Your task to perform on an android device: Search for vegetarian restaurants on Maps Image 0: 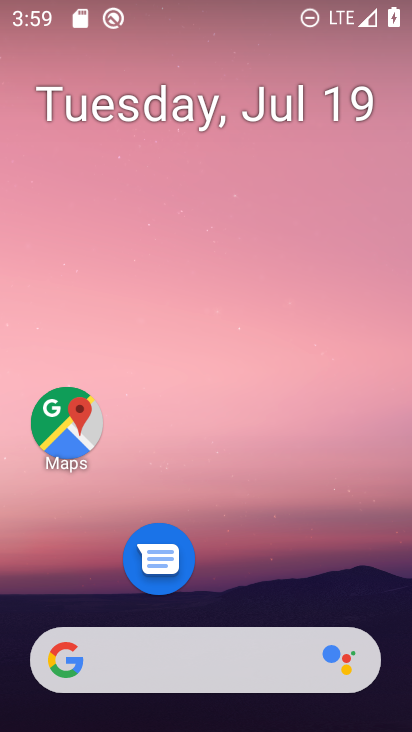
Step 0: drag from (275, 656) to (284, 363)
Your task to perform on an android device: Search for vegetarian restaurants on Maps Image 1: 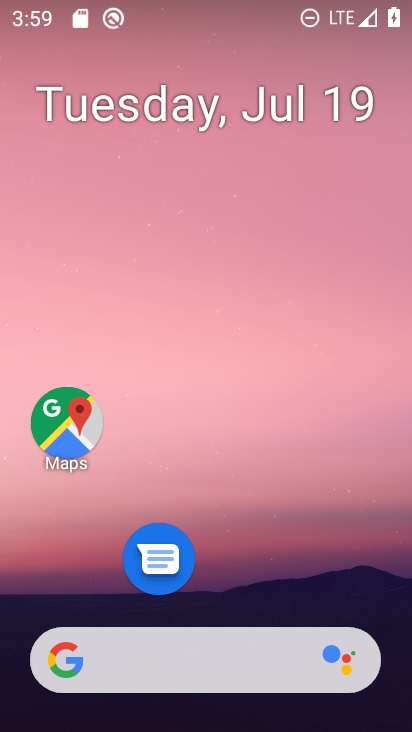
Step 1: drag from (240, 515) to (260, 283)
Your task to perform on an android device: Search for vegetarian restaurants on Maps Image 2: 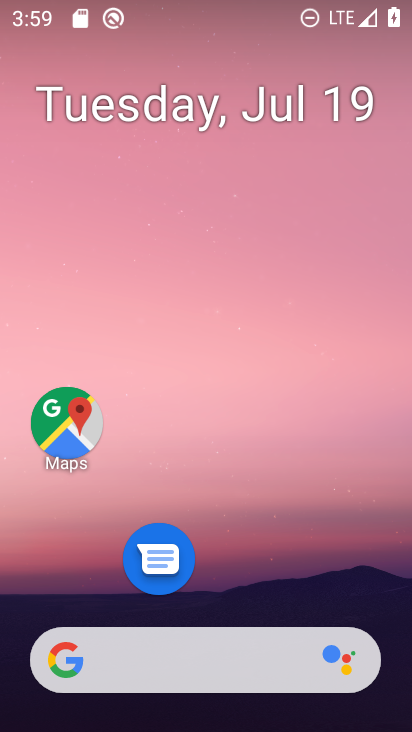
Step 2: drag from (275, 529) to (275, 313)
Your task to perform on an android device: Search for vegetarian restaurants on Maps Image 3: 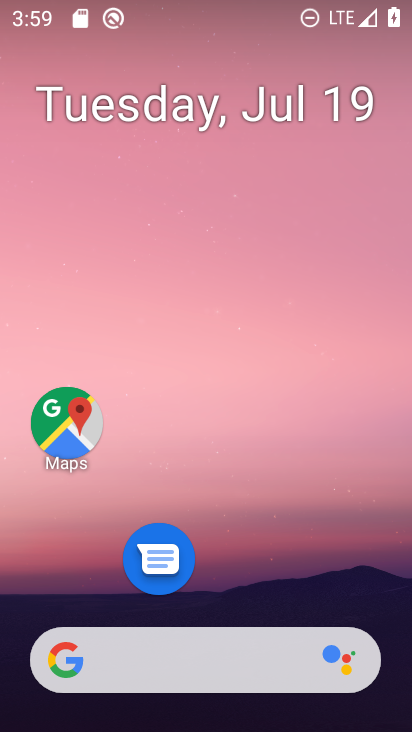
Step 3: drag from (267, 640) to (305, 159)
Your task to perform on an android device: Search for vegetarian restaurants on Maps Image 4: 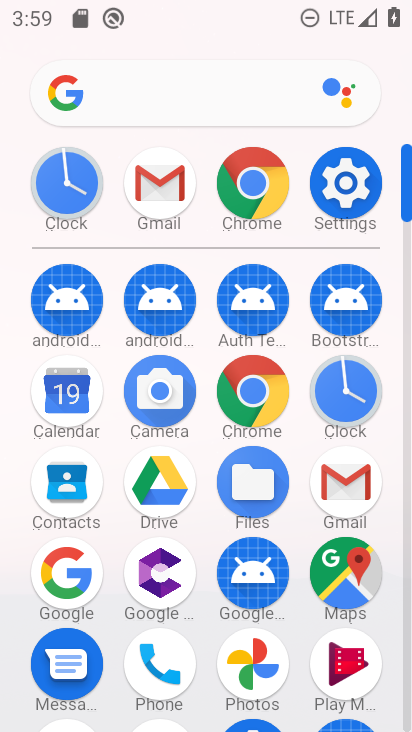
Step 4: click (336, 583)
Your task to perform on an android device: Search for vegetarian restaurants on Maps Image 5: 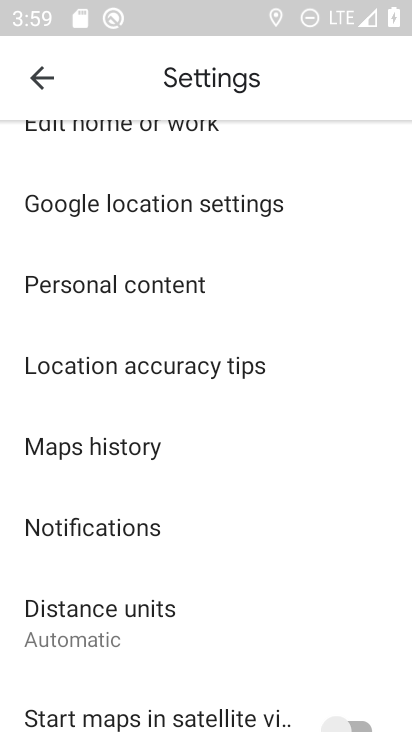
Step 5: press home button
Your task to perform on an android device: Search for vegetarian restaurants on Maps Image 6: 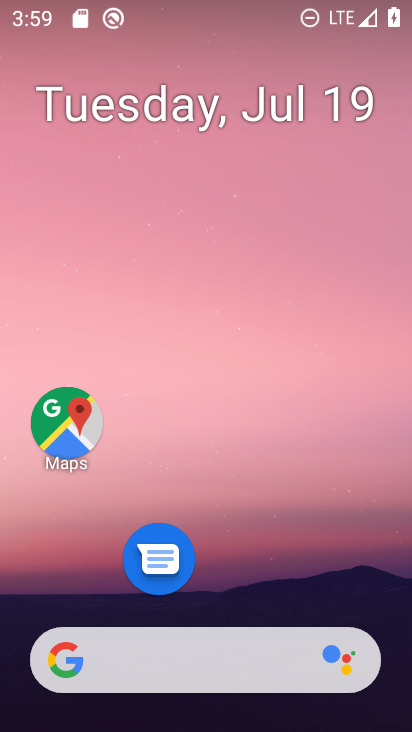
Step 6: click (39, 431)
Your task to perform on an android device: Search for vegetarian restaurants on Maps Image 7: 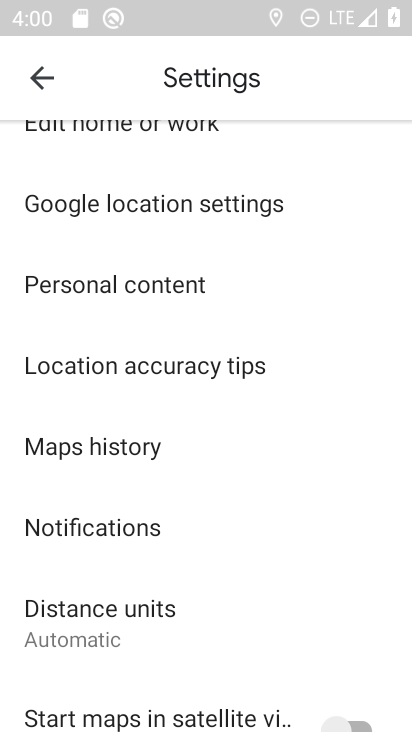
Step 7: click (41, 69)
Your task to perform on an android device: Search for vegetarian restaurants on Maps Image 8: 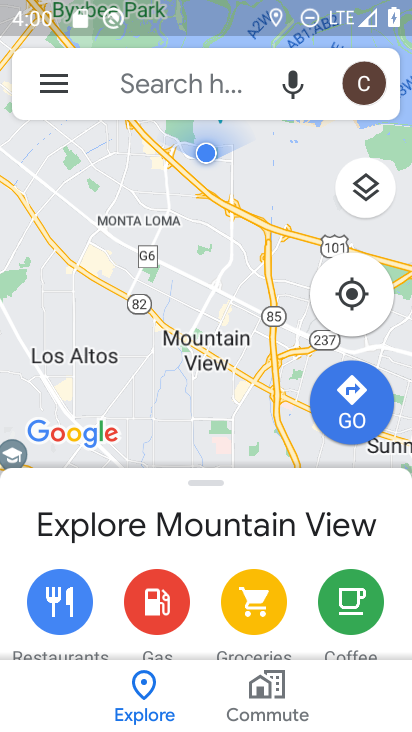
Step 8: click (134, 96)
Your task to perform on an android device: Search for vegetarian restaurants on Maps Image 9: 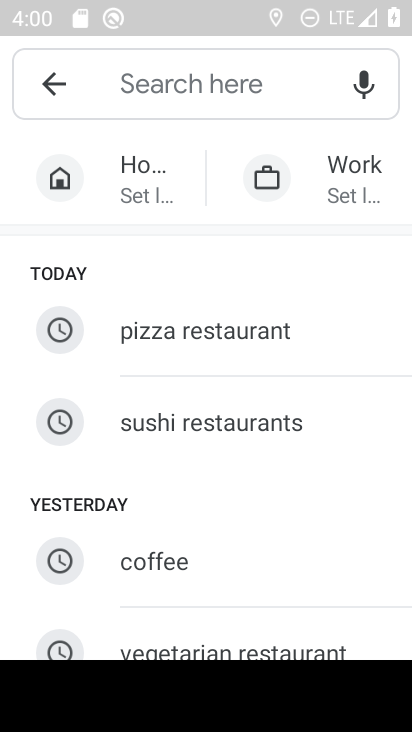
Step 9: click (238, 646)
Your task to perform on an android device: Search for vegetarian restaurants on Maps Image 10: 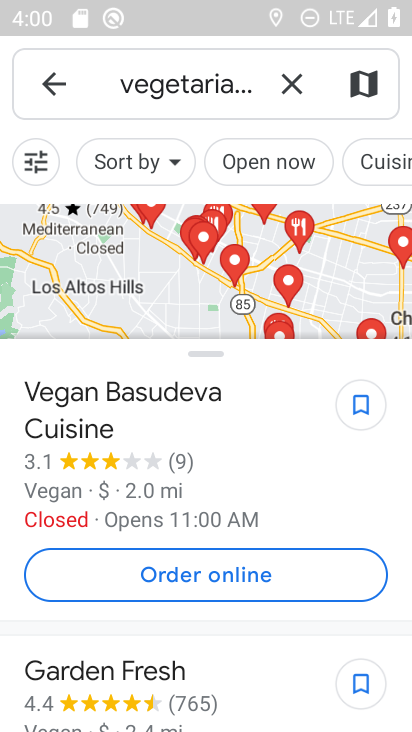
Step 10: task complete